Your task to perform on an android device: Check the news Image 0: 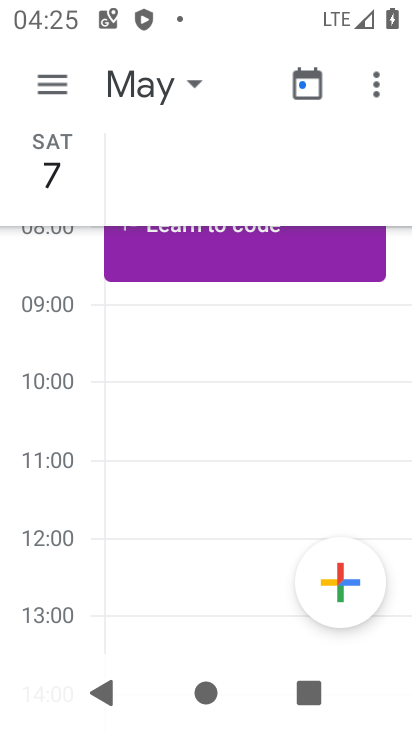
Step 0: press home button
Your task to perform on an android device: Check the news Image 1: 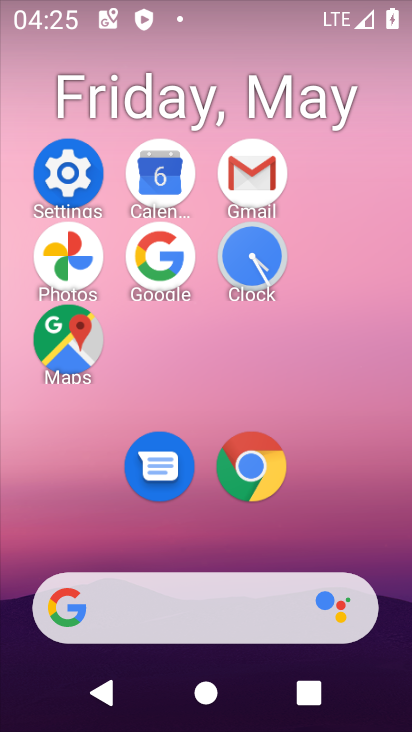
Step 1: click (175, 261)
Your task to perform on an android device: Check the news Image 2: 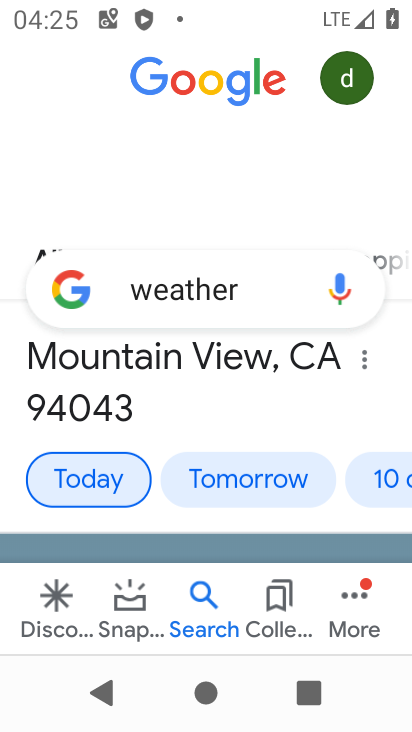
Step 2: click (239, 293)
Your task to perform on an android device: Check the news Image 3: 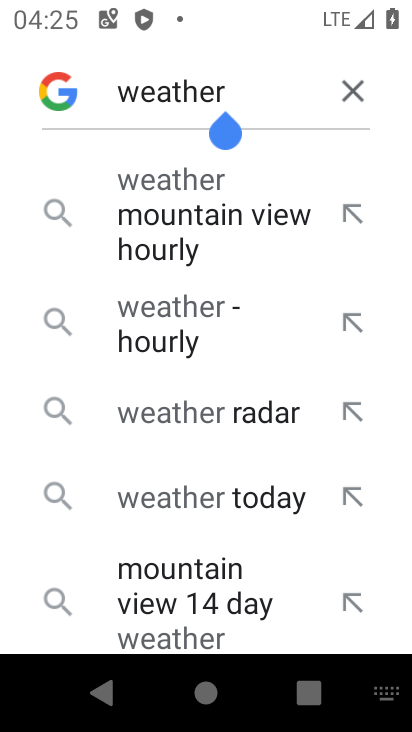
Step 3: click (350, 79)
Your task to perform on an android device: Check the news Image 4: 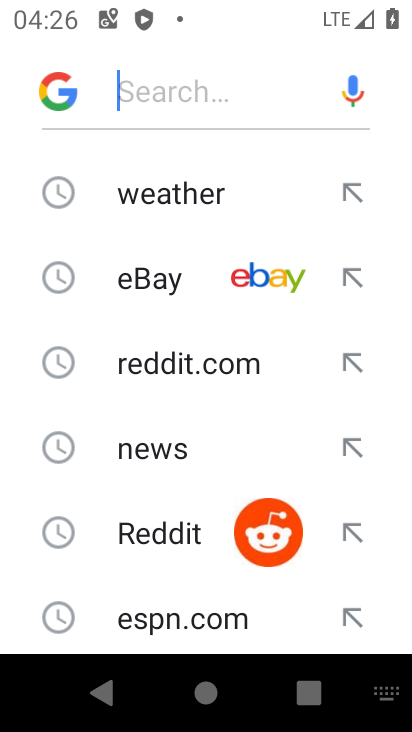
Step 4: click (169, 442)
Your task to perform on an android device: Check the news Image 5: 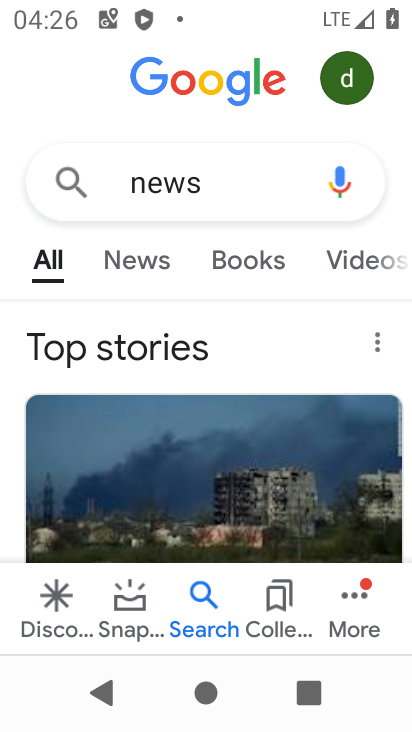
Step 5: task complete